Your task to perform on an android device: allow cookies in the chrome app Image 0: 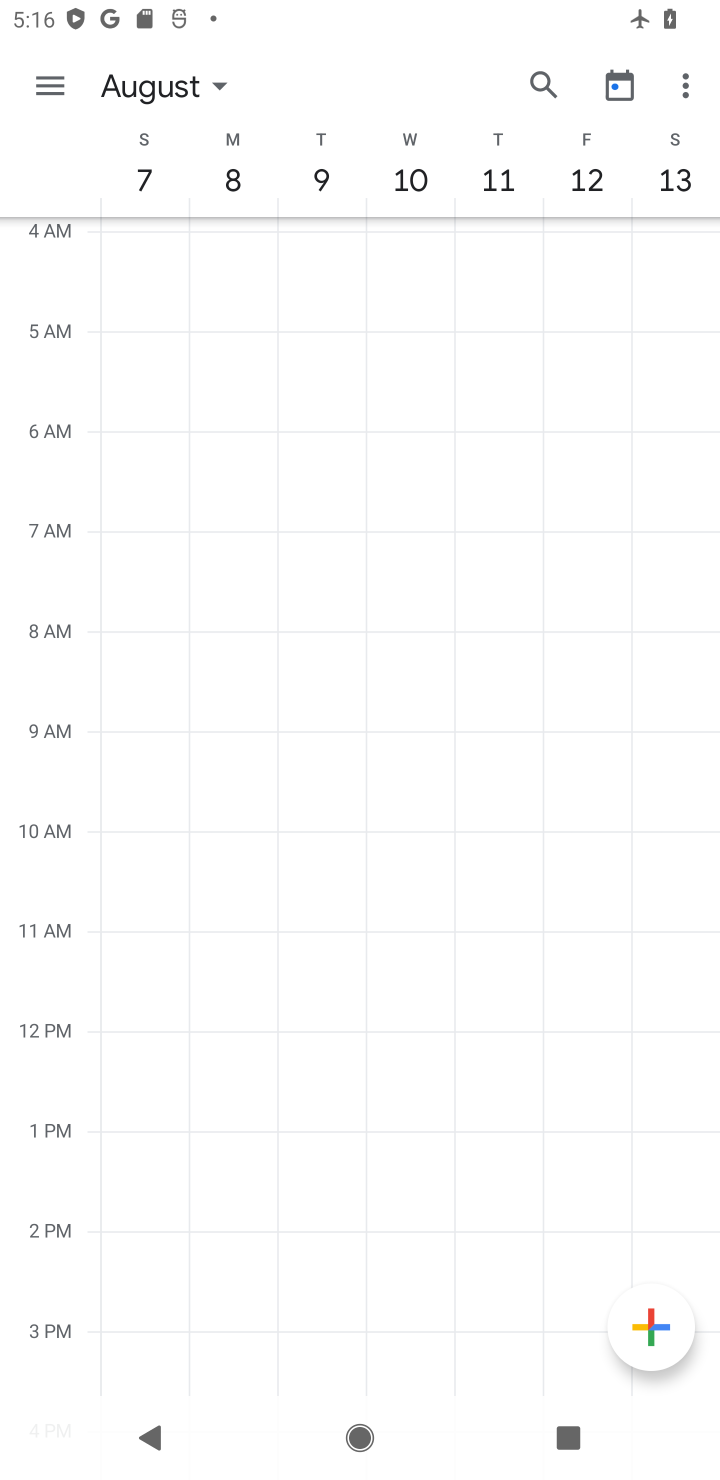
Step 0: press home button
Your task to perform on an android device: allow cookies in the chrome app Image 1: 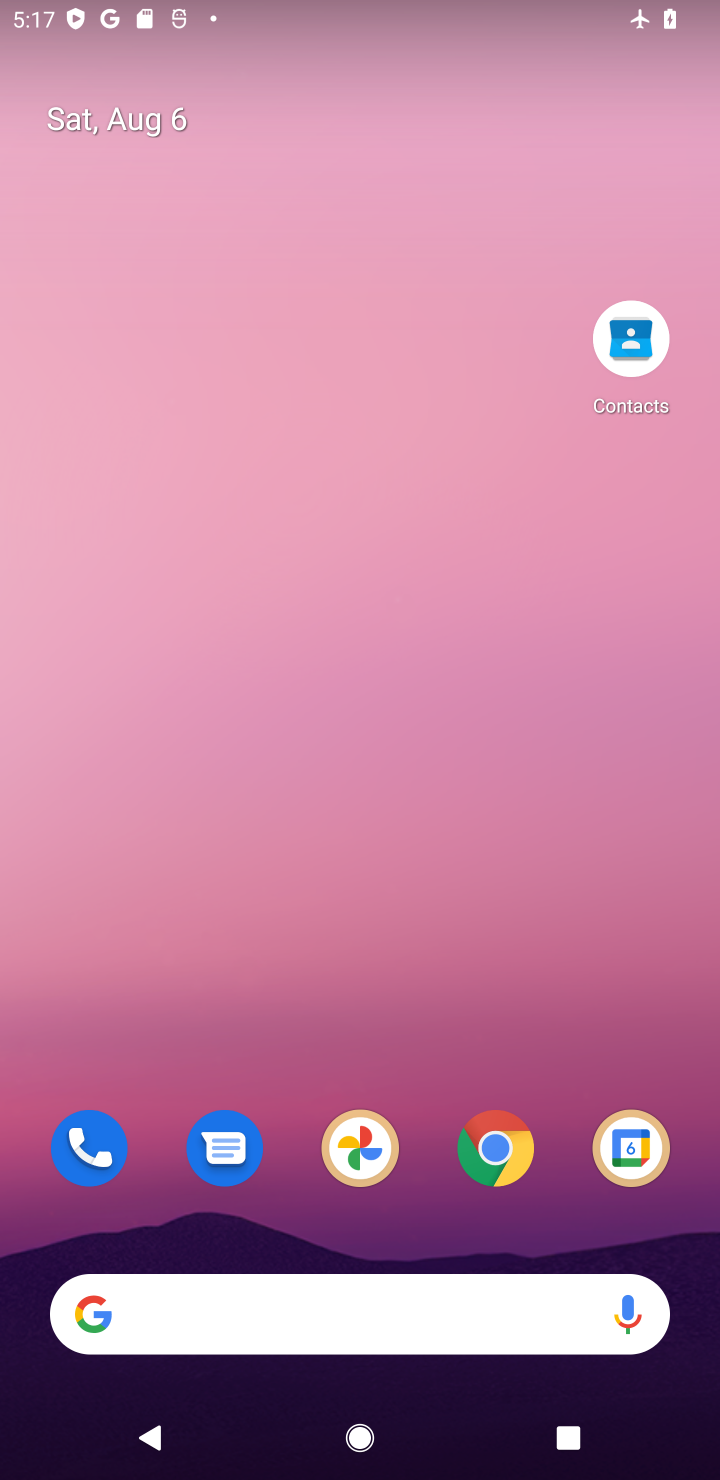
Step 1: drag from (397, 1243) to (515, 8)
Your task to perform on an android device: allow cookies in the chrome app Image 2: 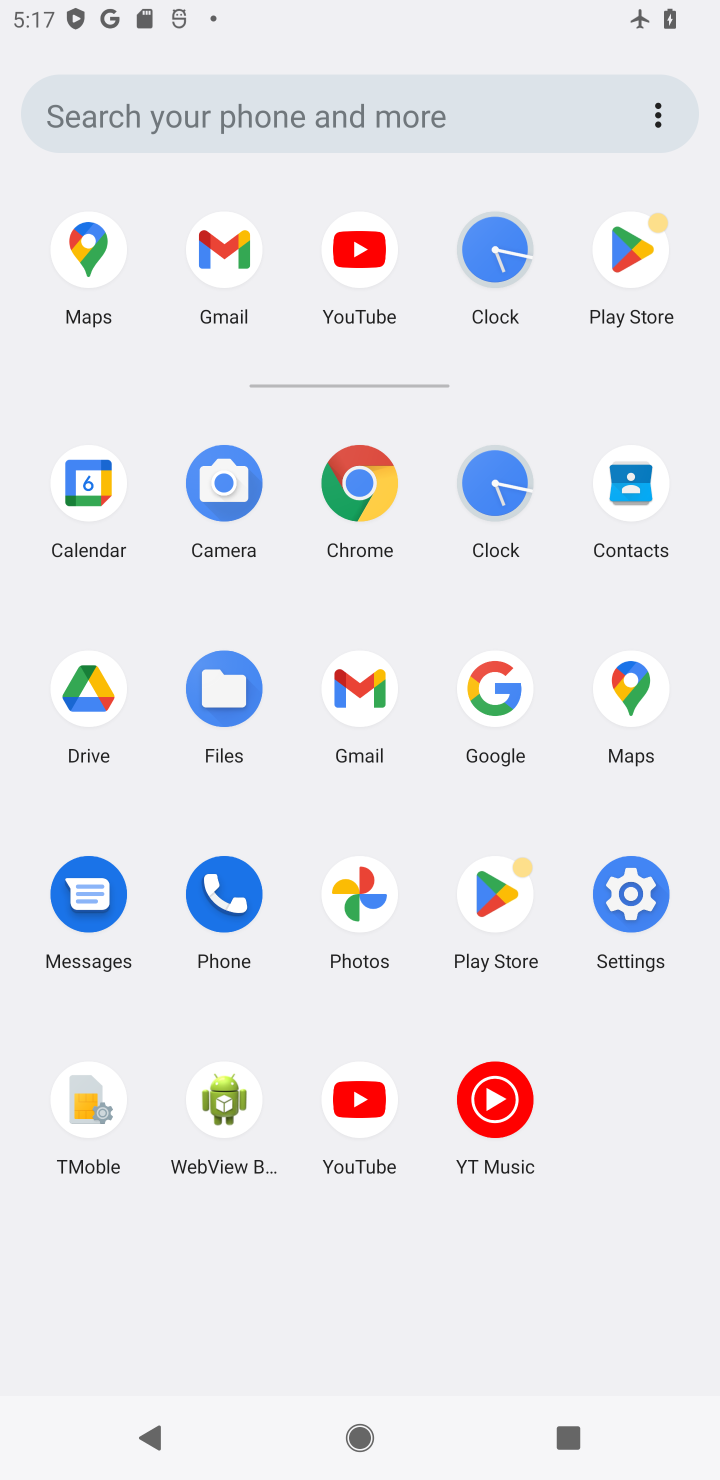
Step 2: click (356, 508)
Your task to perform on an android device: allow cookies in the chrome app Image 3: 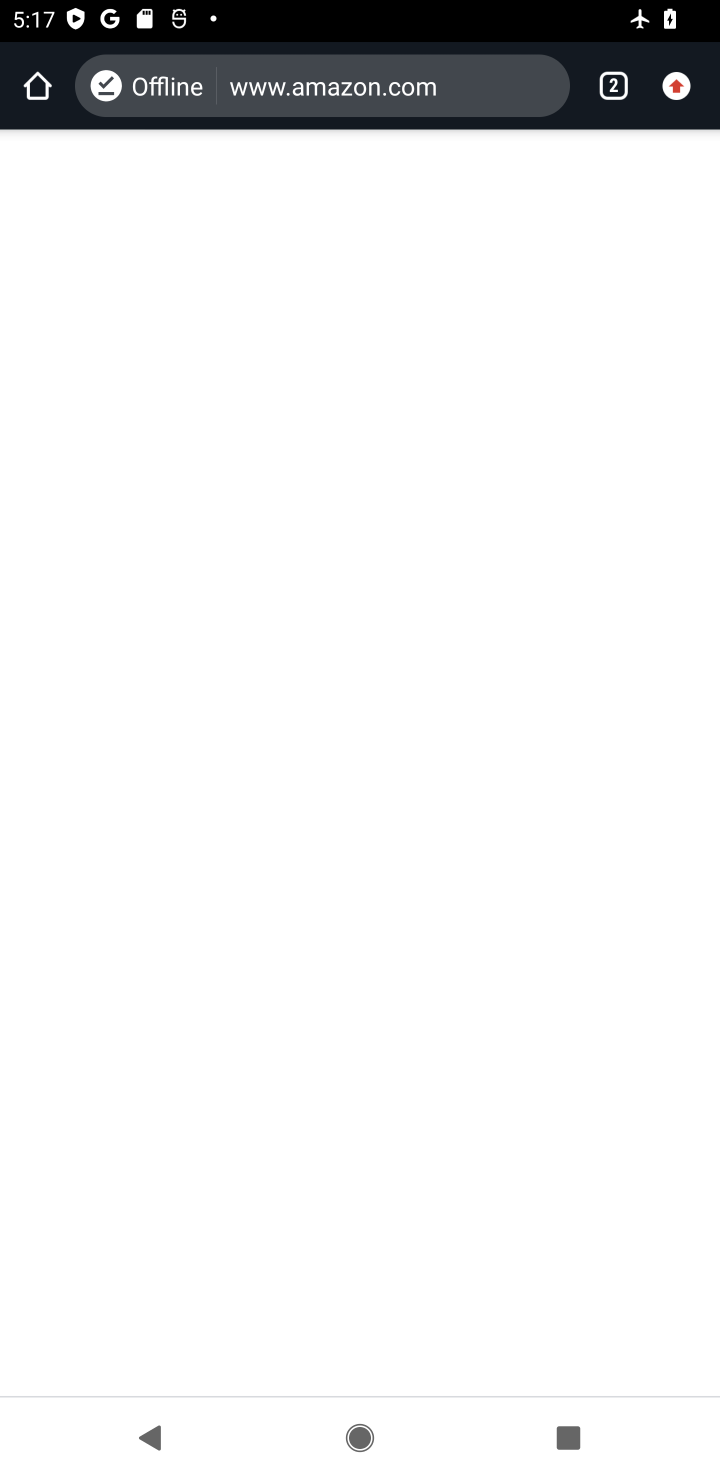
Step 3: drag from (683, 83) to (444, 1048)
Your task to perform on an android device: allow cookies in the chrome app Image 4: 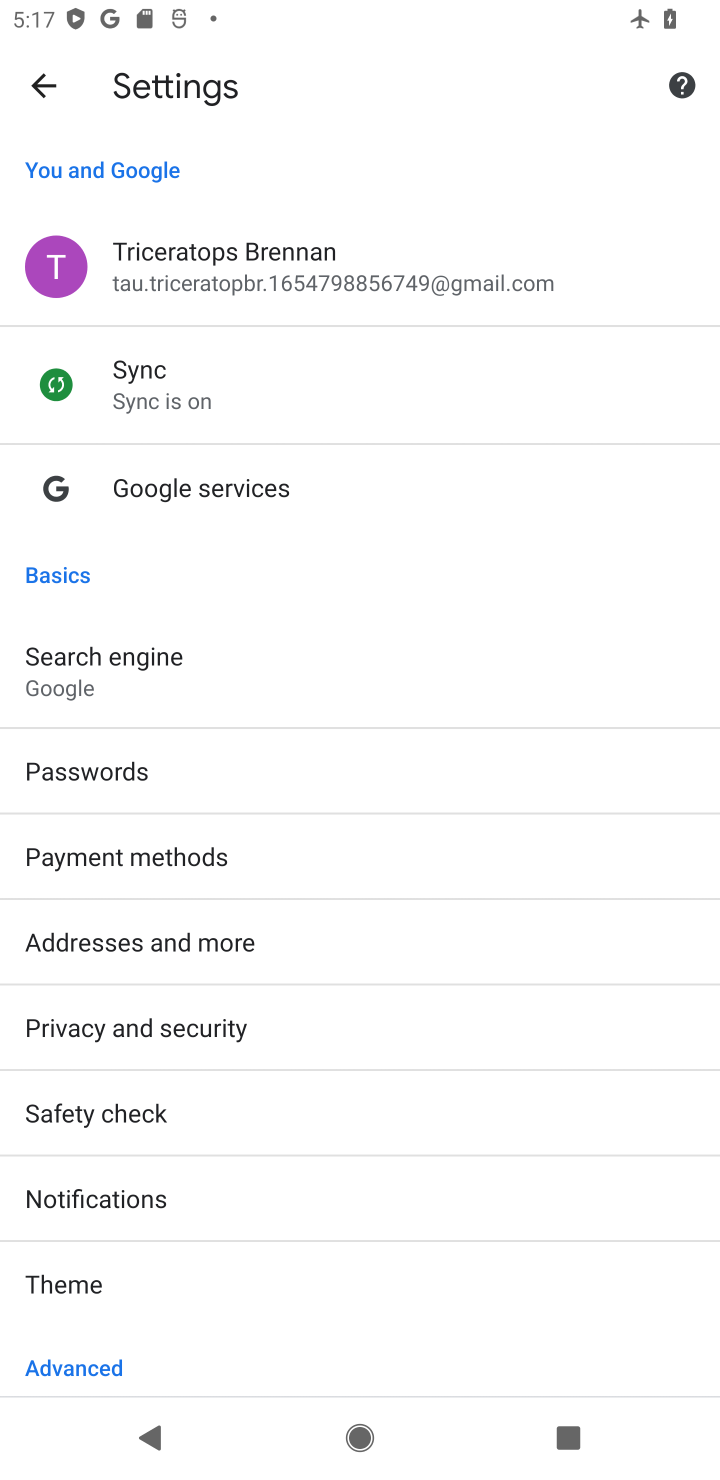
Step 4: drag from (174, 1323) to (192, 130)
Your task to perform on an android device: allow cookies in the chrome app Image 5: 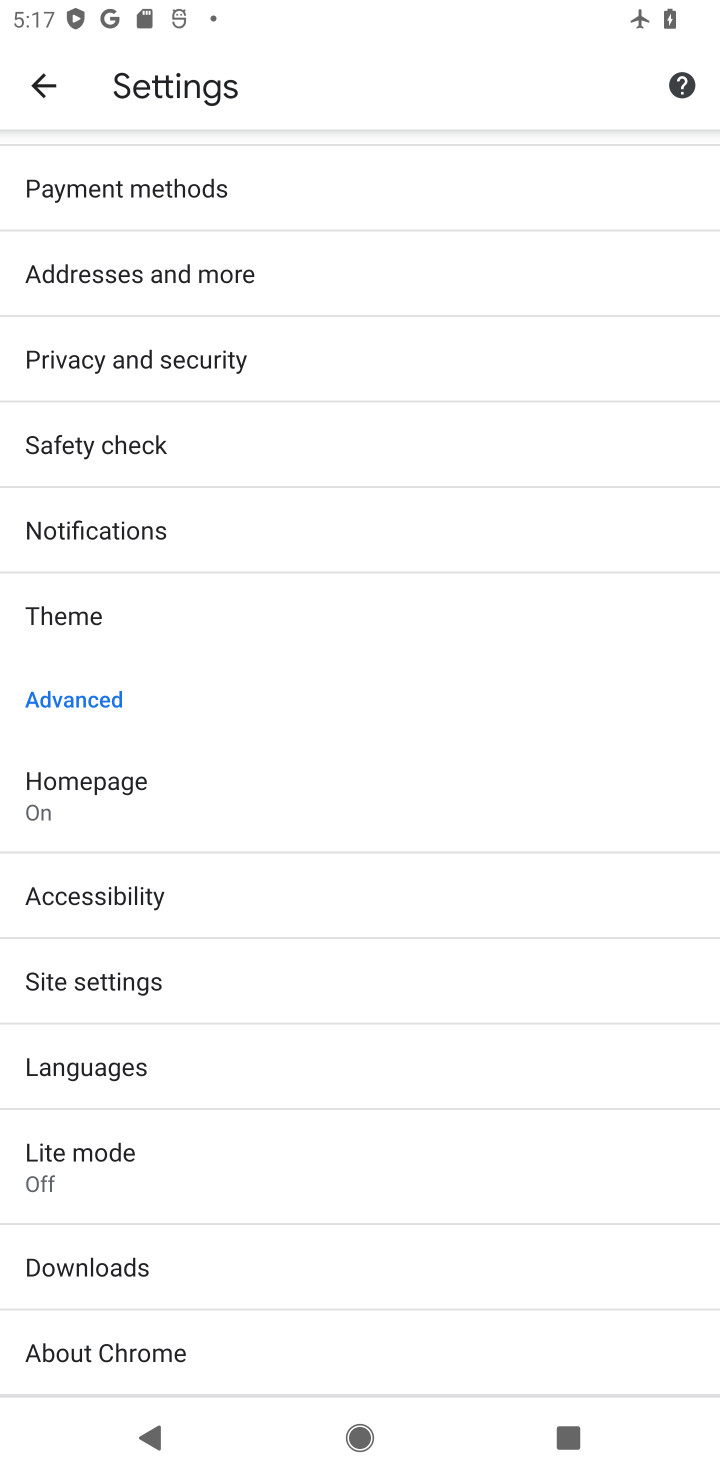
Step 5: click (178, 962)
Your task to perform on an android device: allow cookies in the chrome app Image 6: 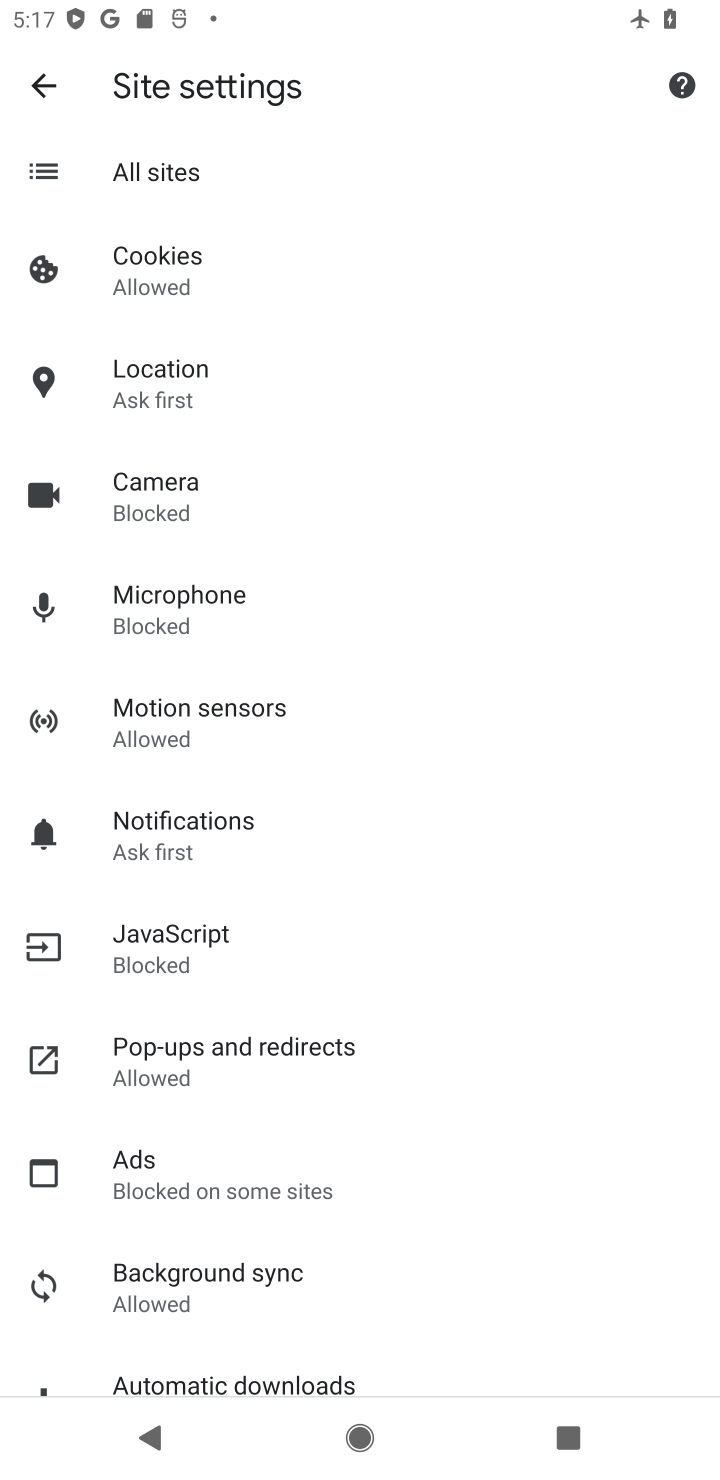
Step 6: click (125, 287)
Your task to perform on an android device: allow cookies in the chrome app Image 7: 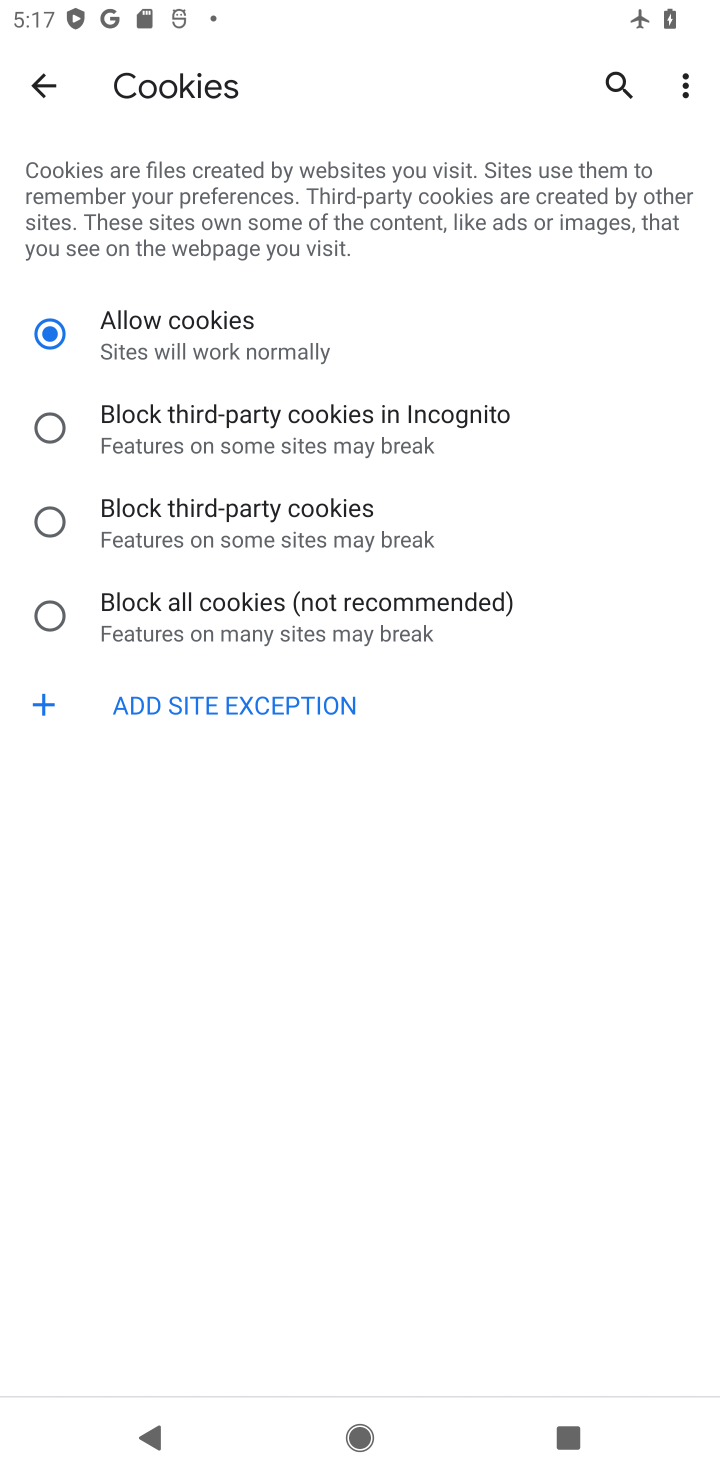
Step 7: task complete